Your task to perform on an android device: See recent photos Image 0: 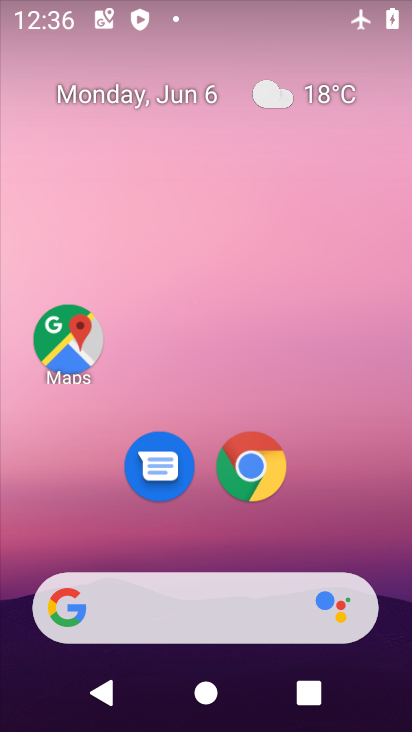
Step 0: drag from (379, 553) to (238, 61)
Your task to perform on an android device: See recent photos Image 1: 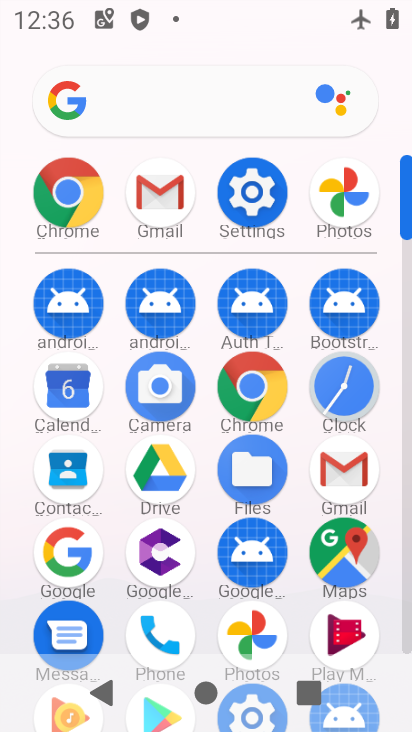
Step 1: click (342, 189)
Your task to perform on an android device: See recent photos Image 2: 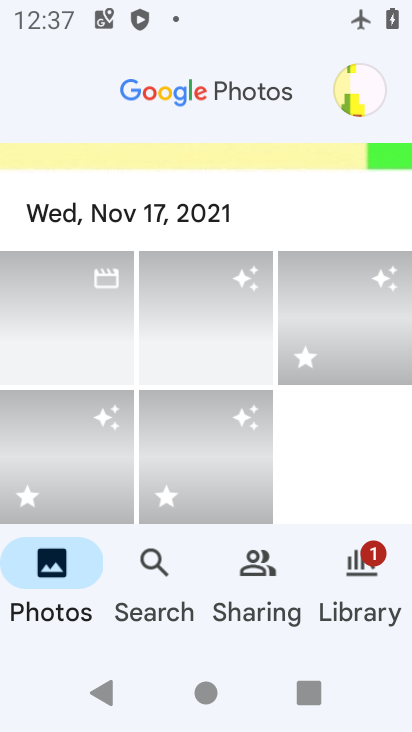
Step 2: task complete